Your task to perform on an android device: Open Wikipedia Image 0: 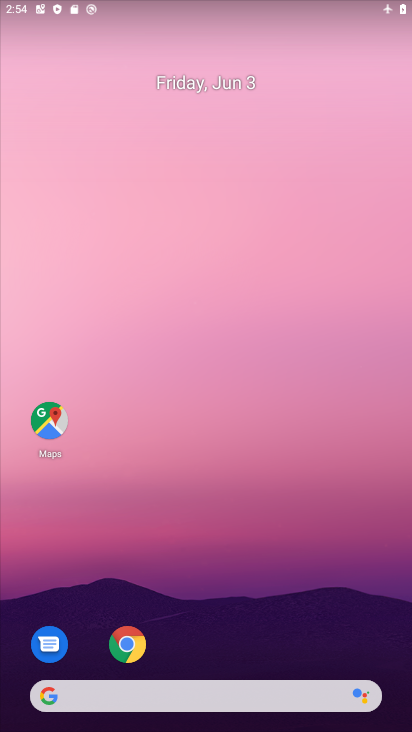
Step 0: click (127, 645)
Your task to perform on an android device: Open Wikipedia Image 1: 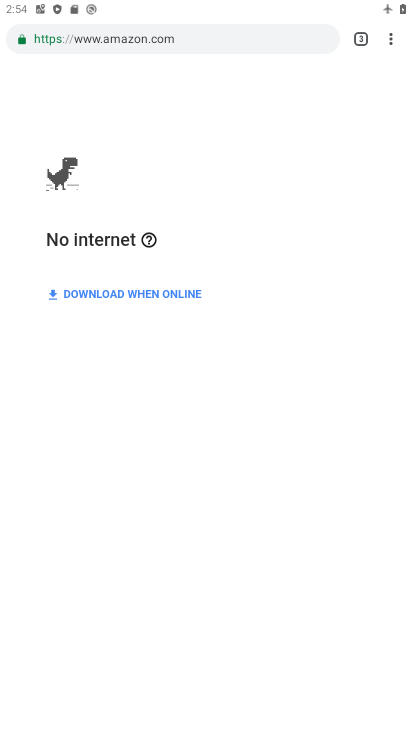
Step 1: task complete